Your task to perform on an android device: toggle pop-ups in chrome Image 0: 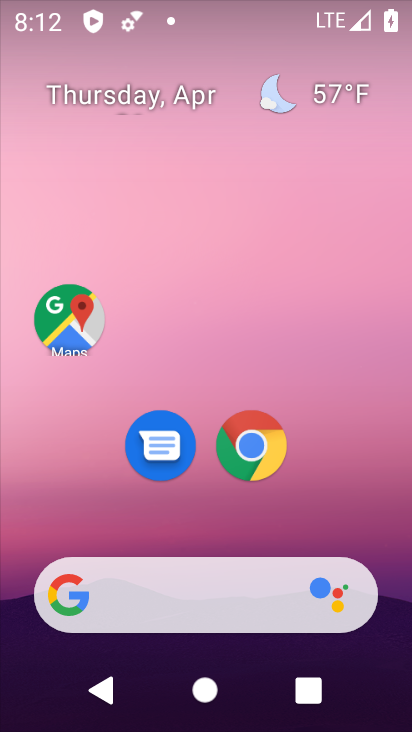
Step 0: click (257, 449)
Your task to perform on an android device: toggle pop-ups in chrome Image 1: 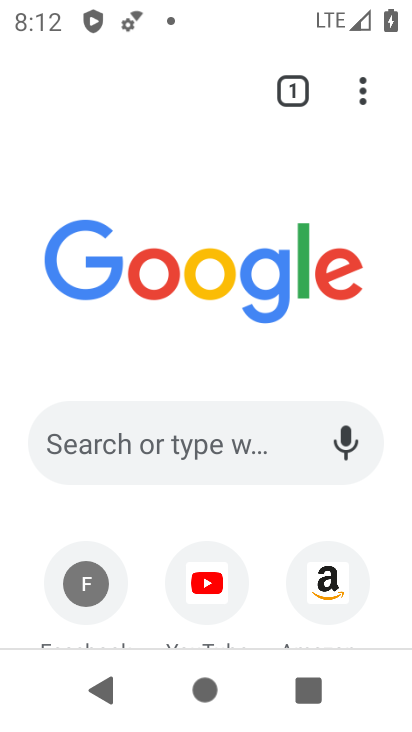
Step 1: click (360, 96)
Your task to perform on an android device: toggle pop-ups in chrome Image 2: 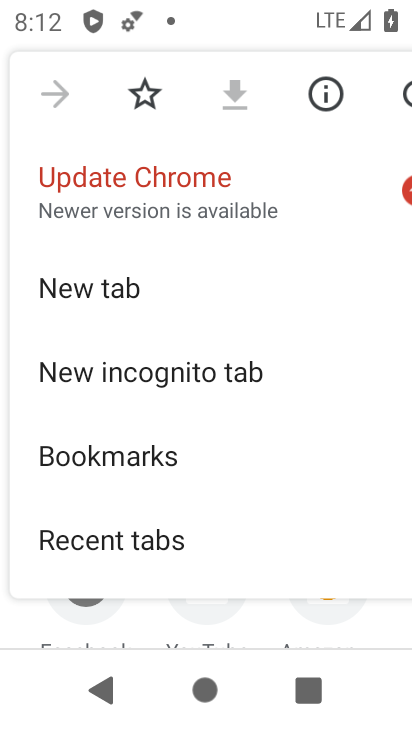
Step 2: drag from (246, 426) to (213, 12)
Your task to perform on an android device: toggle pop-ups in chrome Image 3: 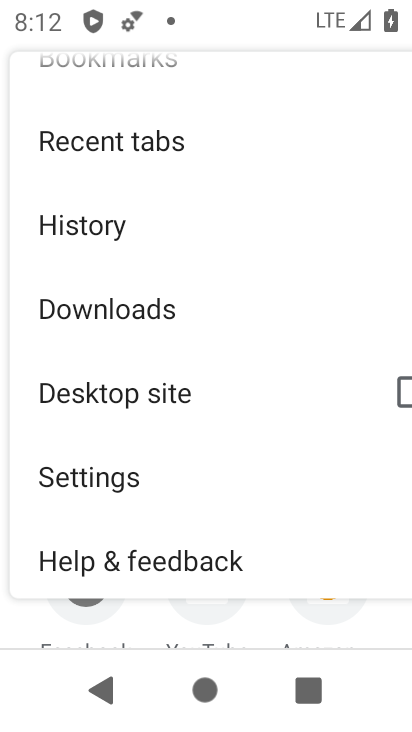
Step 3: drag from (190, 402) to (177, 133)
Your task to perform on an android device: toggle pop-ups in chrome Image 4: 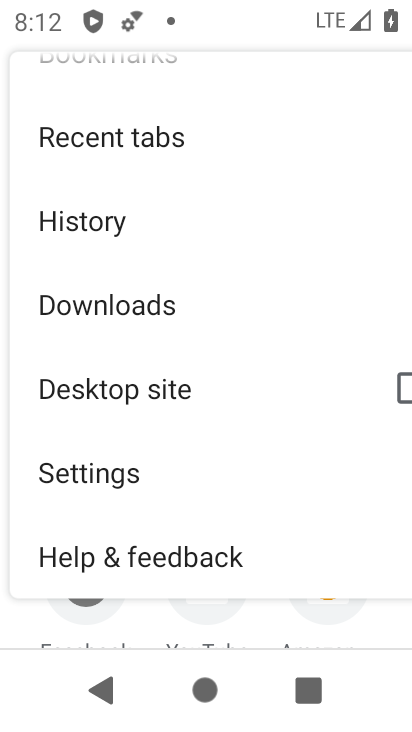
Step 4: click (91, 482)
Your task to perform on an android device: toggle pop-ups in chrome Image 5: 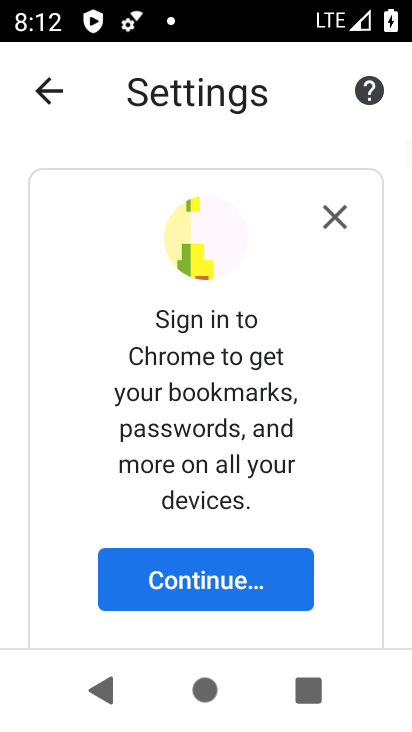
Step 5: drag from (378, 553) to (345, 138)
Your task to perform on an android device: toggle pop-ups in chrome Image 6: 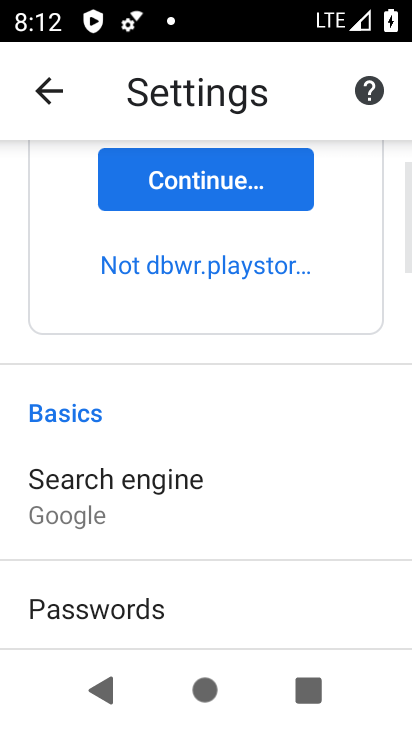
Step 6: drag from (259, 498) to (231, 60)
Your task to perform on an android device: toggle pop-ups in chrome Image 7: 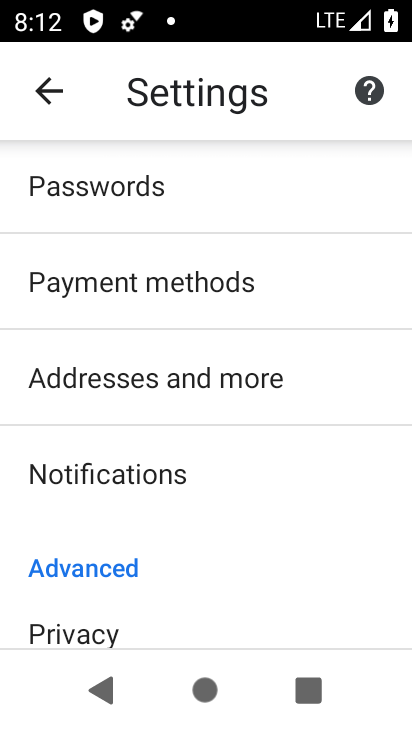
Step 7: drag from (182, 424) to (172, 62)
Your task to perform on an android device: toggle pop-ups in chrome Image 8: 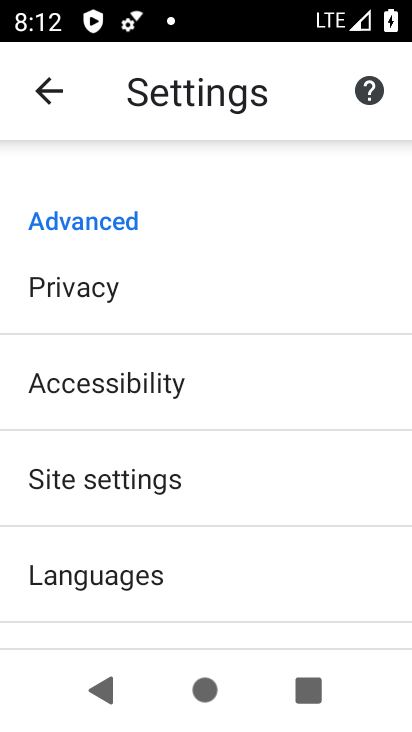
Step 8: click (91, 490)
Your task to perform on an android device: toggle pop-ups in chrome Image 9: 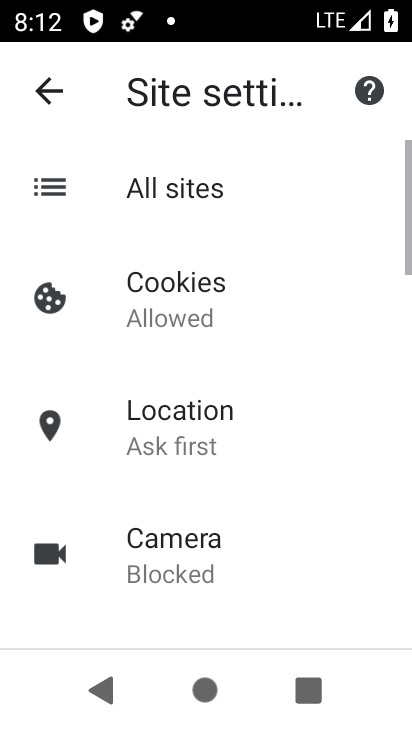
Step 9: drag from (201, 501) to (179, 69)
Your task to perform on an android device: toggle pop-ups in chrome Image 10: 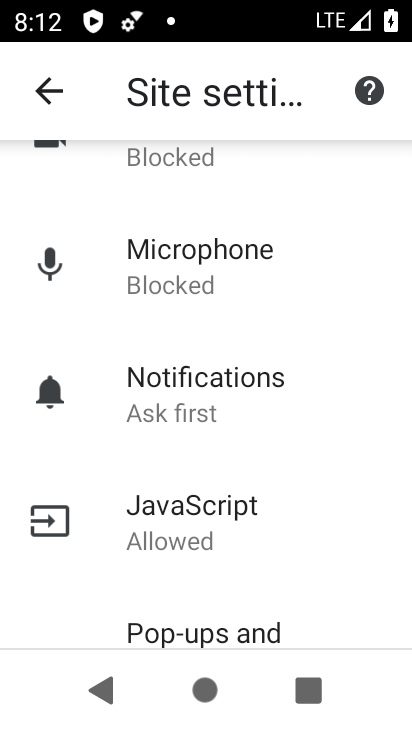
Step 10: drag from (211, 448) to (186, 159)
Your task to perform on an android device: toggle pop-ups in chrome Image 11: 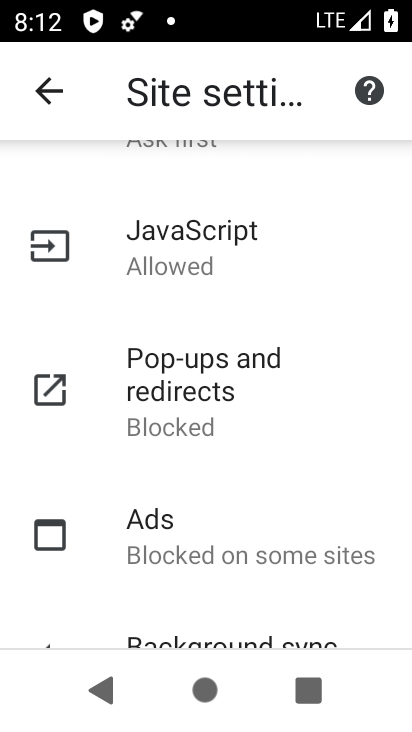
Step 11: click (175, 387)
Your task to perform on an android device: toggle pop-ups in chrome Image 12: 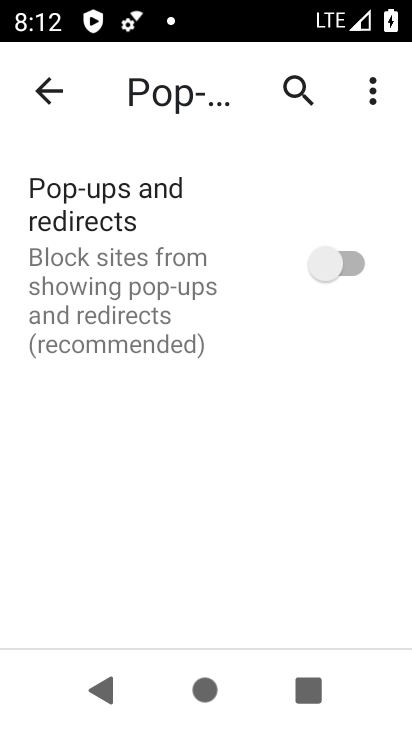
Step 12: click (317, 260)
Your task to perform on an android device: toggle pop-ups in chrome Image 13: 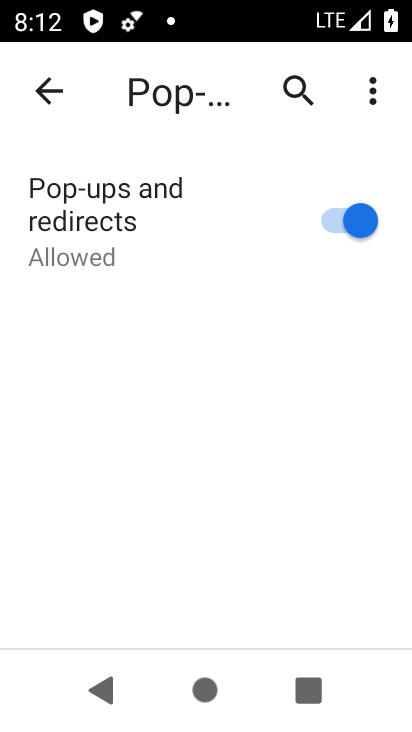
Step 13: task complete